Your task to perform on an android device: open sync settings in chrome Image 0: 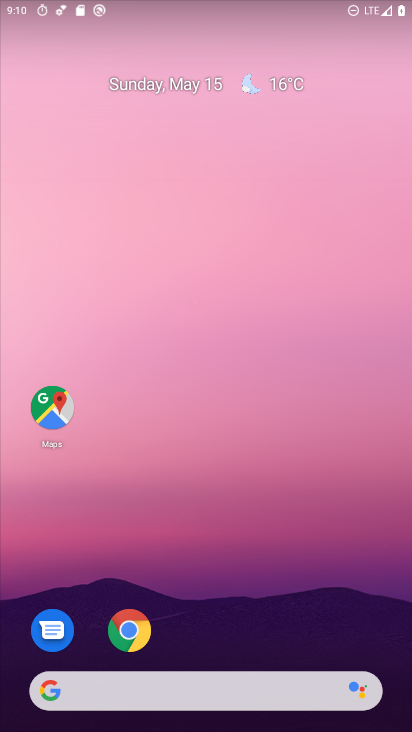
Step 0: drag from (210, 536) to (222, 125)
Your task to perform on an android device: open sync settings in chrome Image 1: 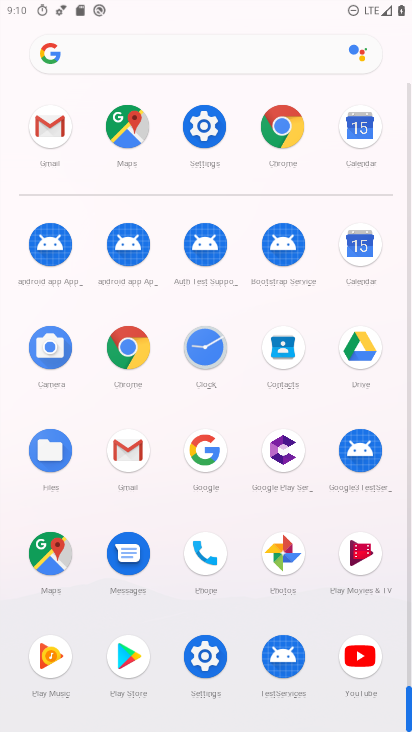
Step 1: click (131, 339)
Your task to perform on an android device: open sync settings in chrome Image 2: 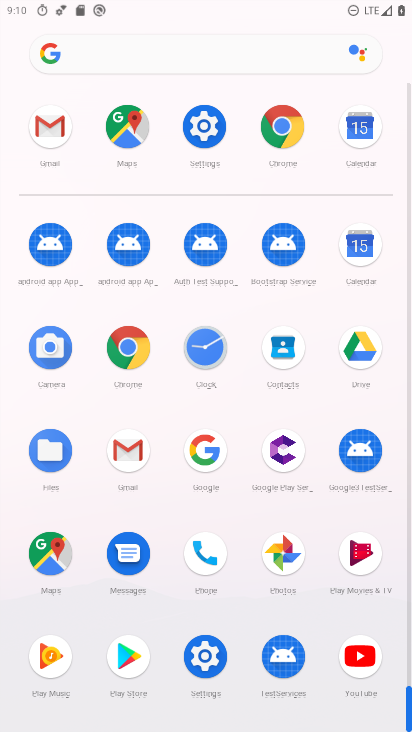
Step 2: click (131, 339)
Your task to perform on an android device: open sync settings in chrome Image 3: 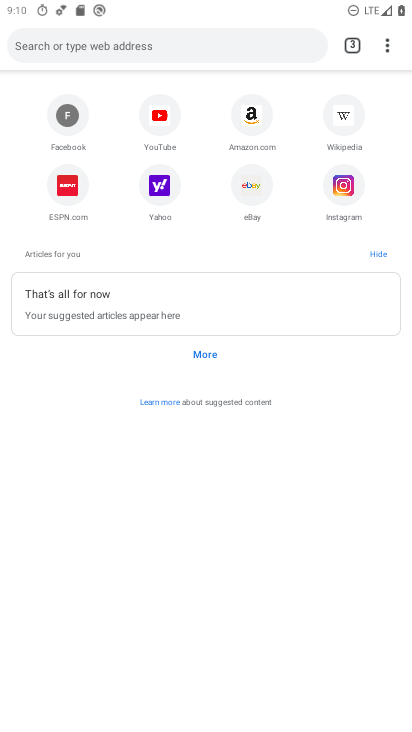
Step 3: drag from (213, 244) to (239, 621)
Your task to perform on an android device: open sync settings in chrome Image 4: 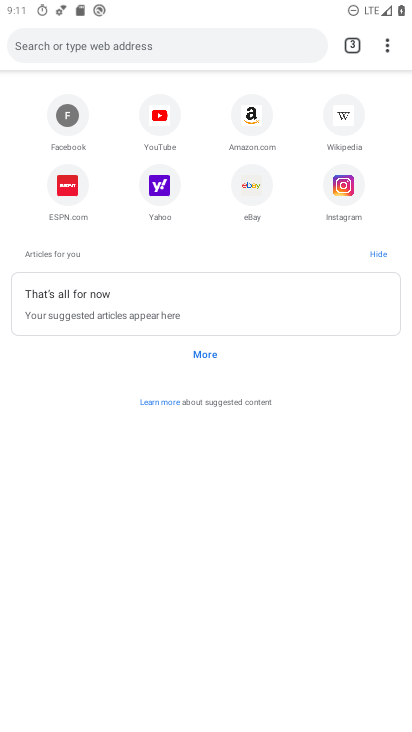
Step 4: click (393, 43)
Your task to perform on an android device: open sync settings in chrome Image 5: 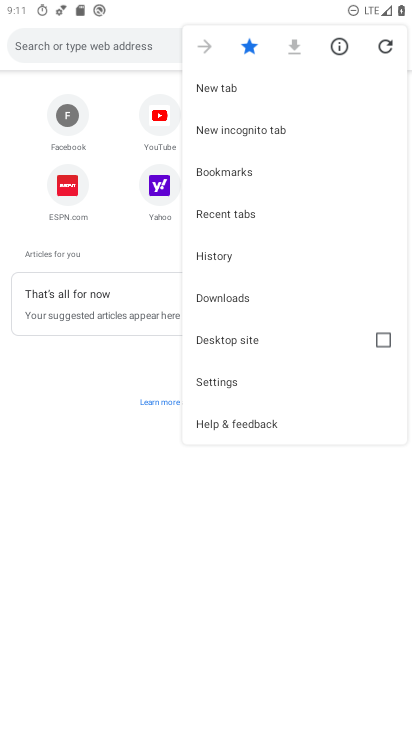
Step 5: click (263, 385)
Your task to perform on an android device: open sync settings in chrome Image 6: 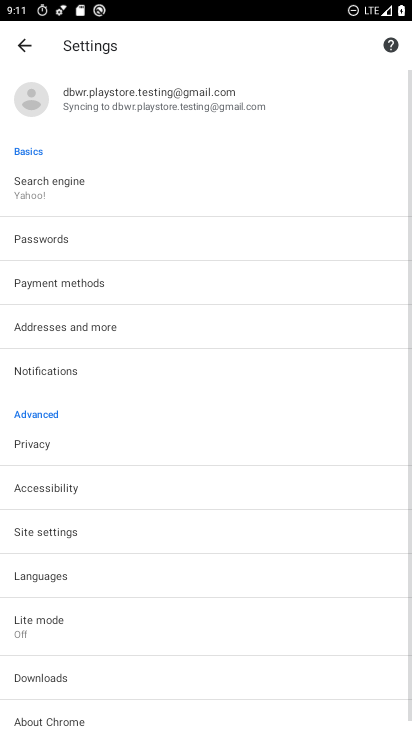
Step 6: drag from (119, 623) to (164, 0)
Your task to perform on an android device: open sync settings in chrome Image 7: 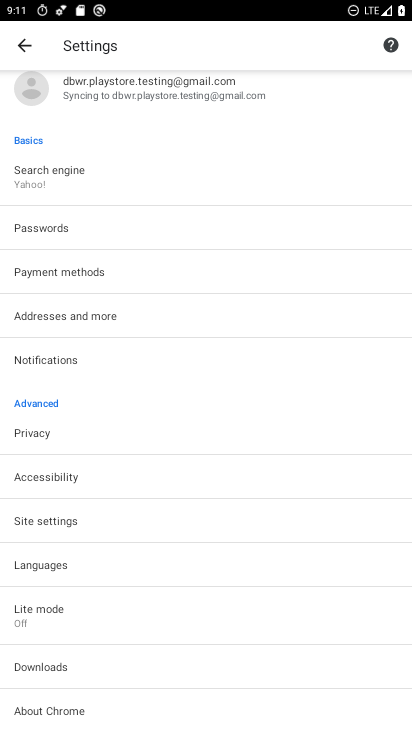
Step 7: click (46, 522)
Your task to perform on an android device: open sync settings in chrome Image 8: 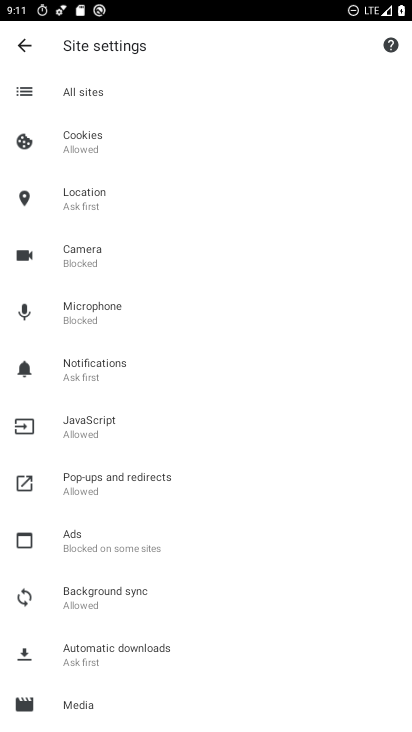
Step 8: drag from (166, 663) to (212, 298)
Your task to perform on an android device: open sync settings in chrome Image 9: 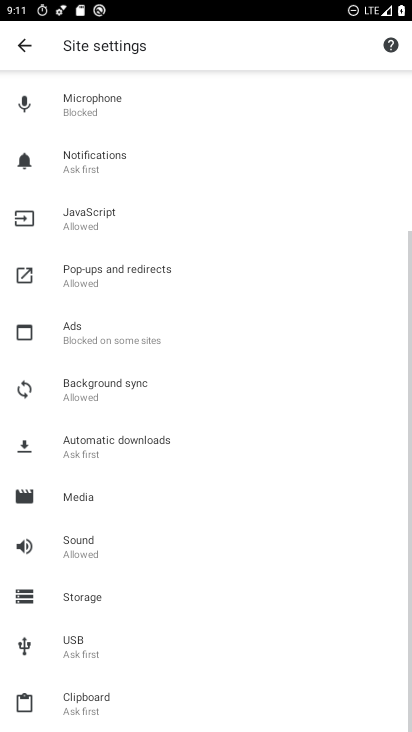
Step 9: click (148, 401)
Your task to perform on an android device: open sync settings in chrome Image 10: 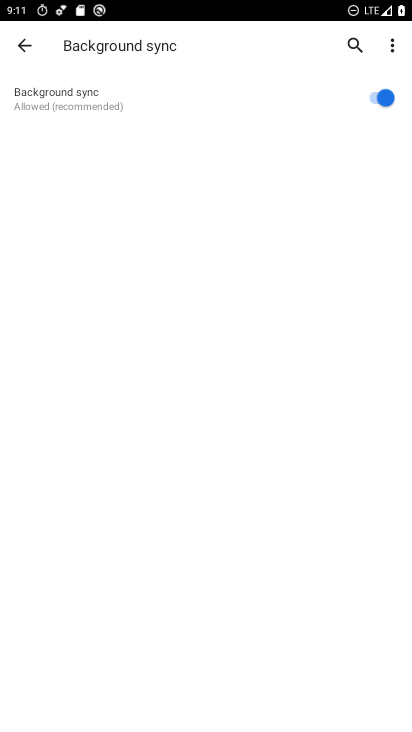
Step 10: task complete